Your task to perform on an android device: find photos in the google photos app Image 0: 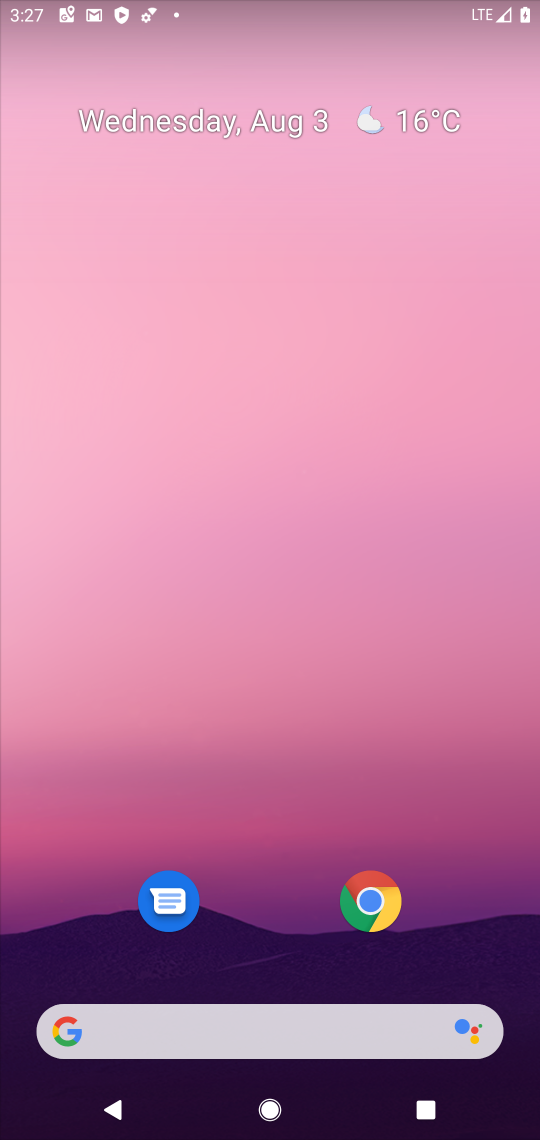
Step 0: drag from (298, 846) to (316, 410)
Your task to perform on an android device: find photos in the google photos app Image 1: 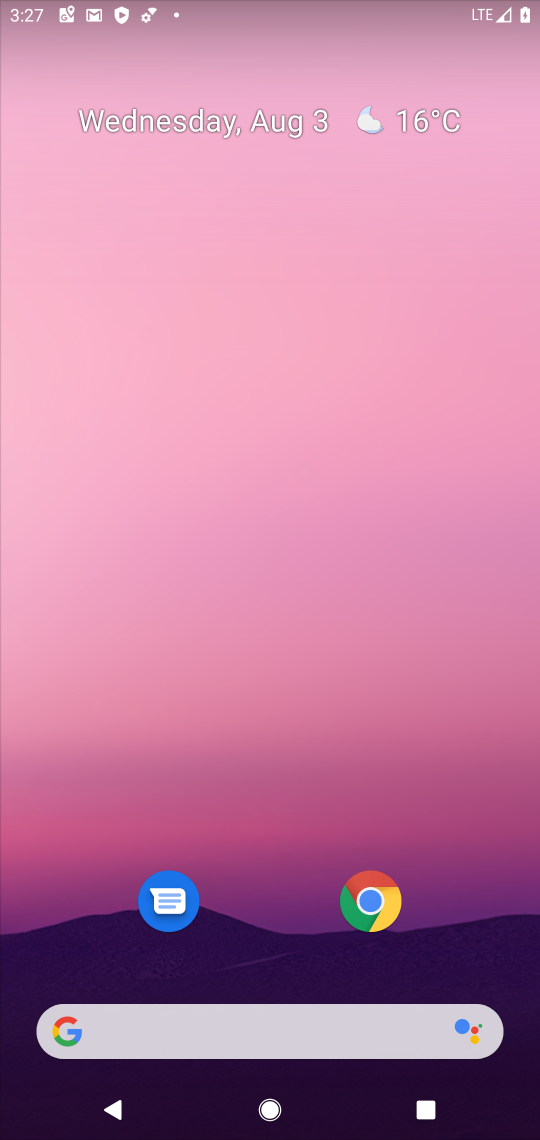
Step 1: drag from (292, 943) to (337, 130)
Your task to perform on an android device: find photos in the google photos app Image 2: 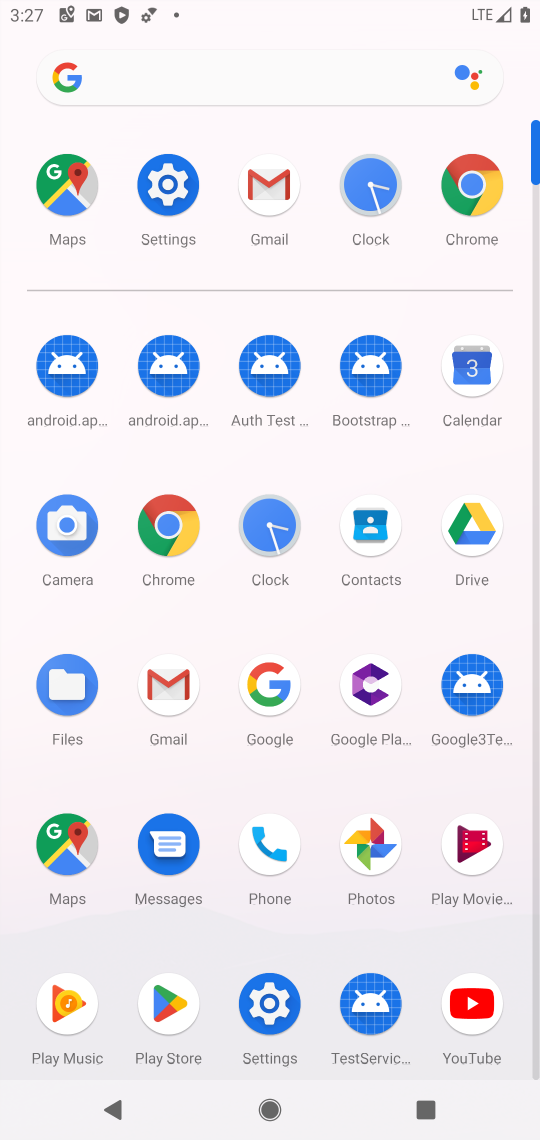
Step 2: click (374, 806)
Your task to perform on an android device: find photos in the google photos app Image 3: 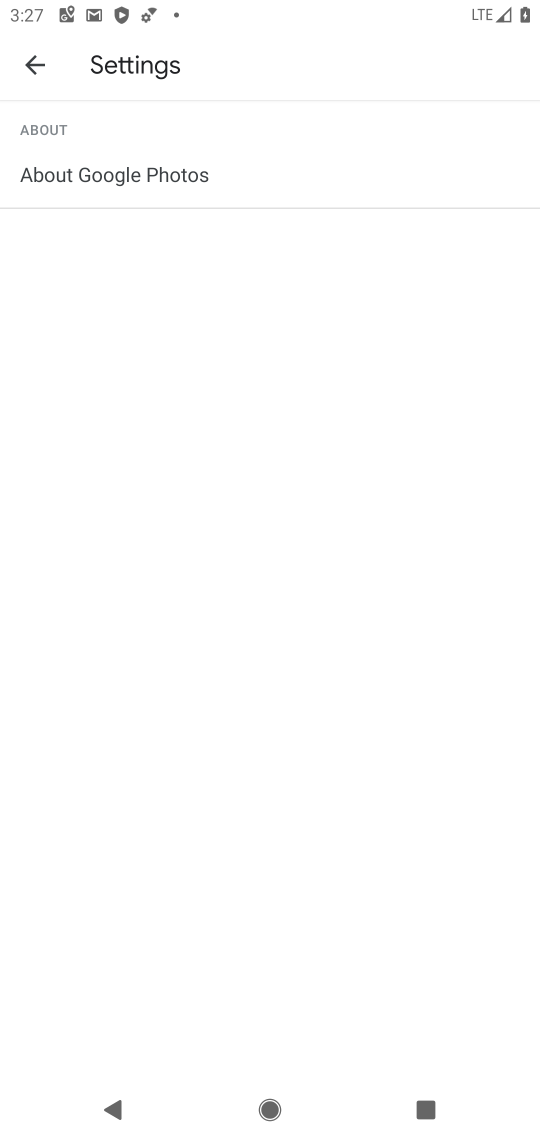
Step 3: click (32, 60)
Your task to perform on an android device: find photos in the google photos app Image 4: 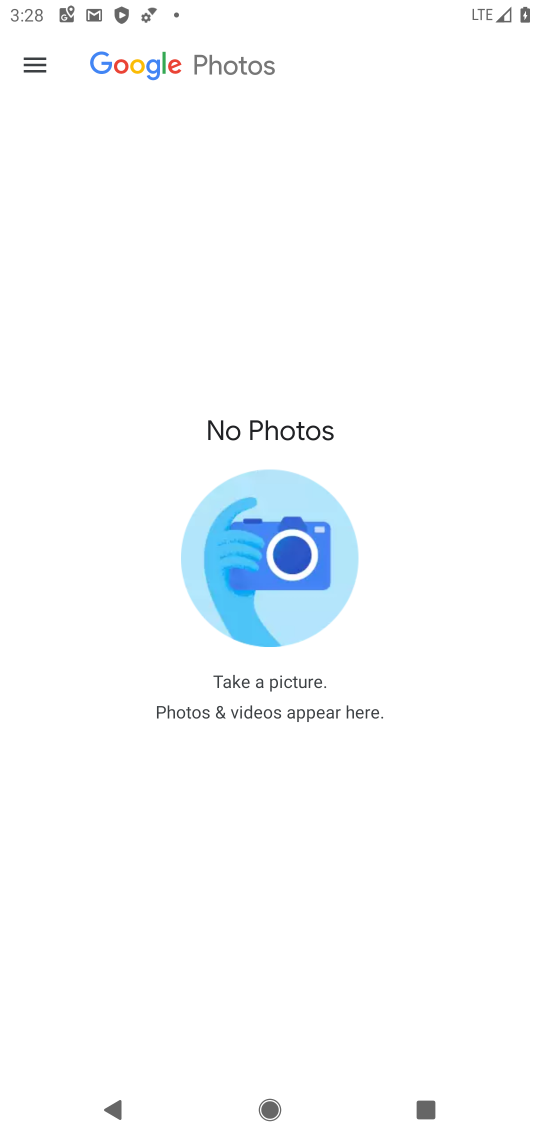
Step 4: click (42, 60)
Your task to perform on an android device: find photos in the google photos app Image 5: 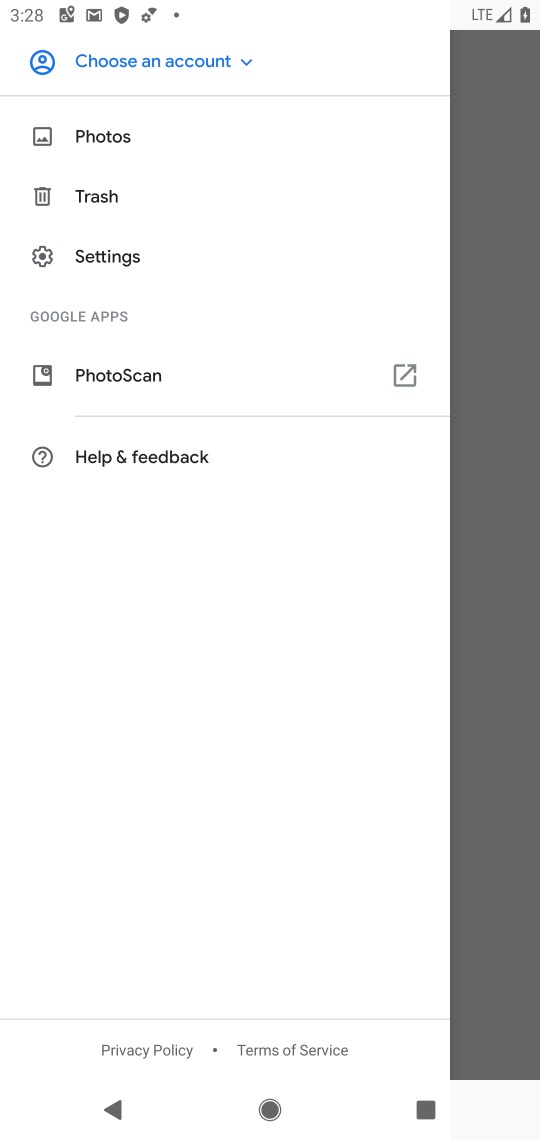
Step 5: click (515, 554)
Your task to perform on an android device: find photos in the google photos app Image 6: 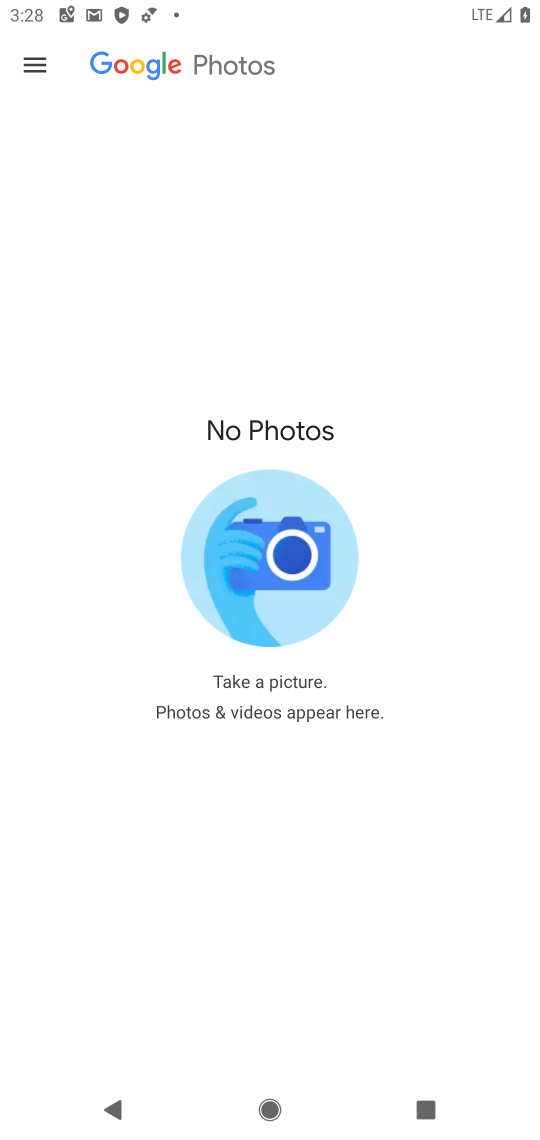
Step 6: click (327, 561)
Your task to perform on an android device: find photos in the google photos app Image 7: 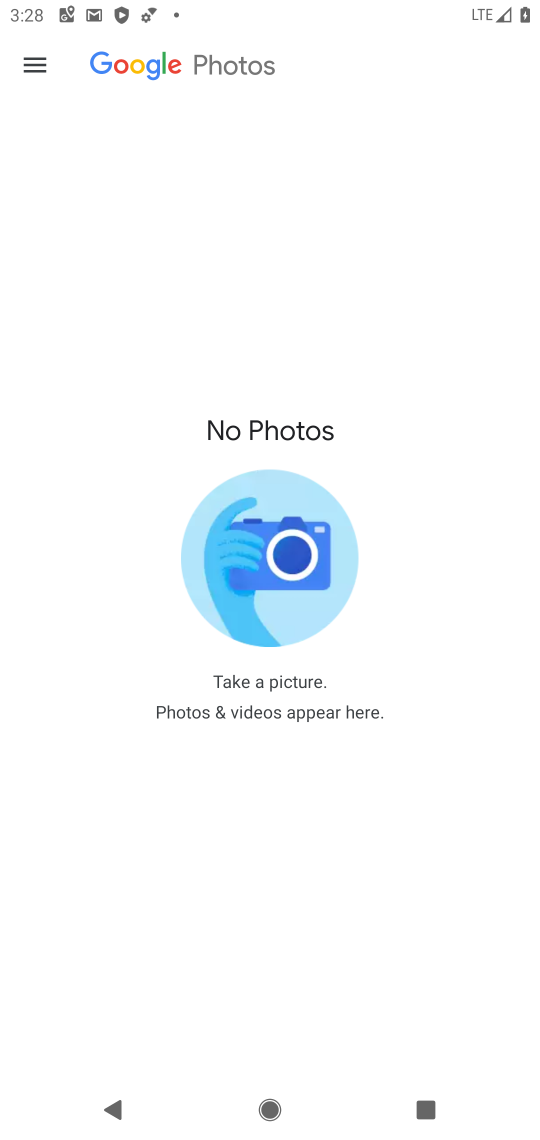
Step 7: task complete